Your task to perform on an android device: Is it going to rain tomorrow? Image 0: 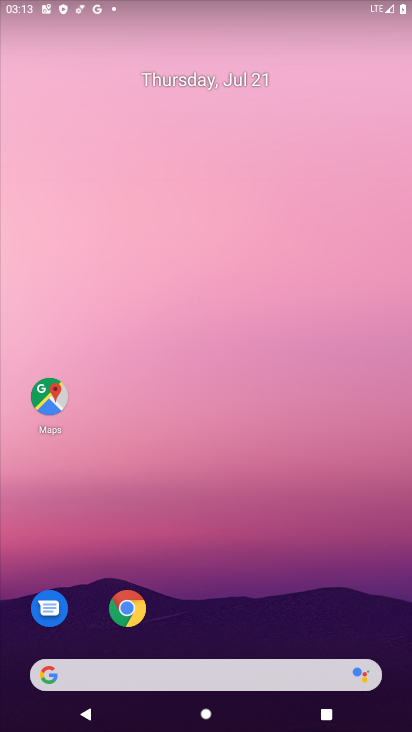
Step 0: click (240, 675)
Your task to perform on an android device: Is it going to rain tomorrow? Image 1: 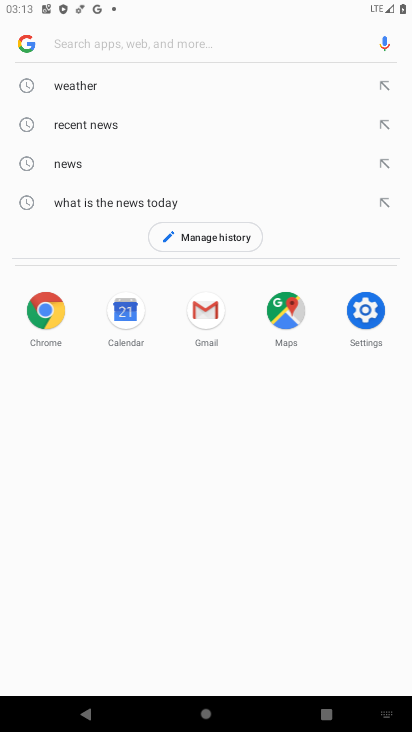
Step 1: click (74, 81)
Your task to perform on an android device: Is it going to rain tomorrow? Image 2: 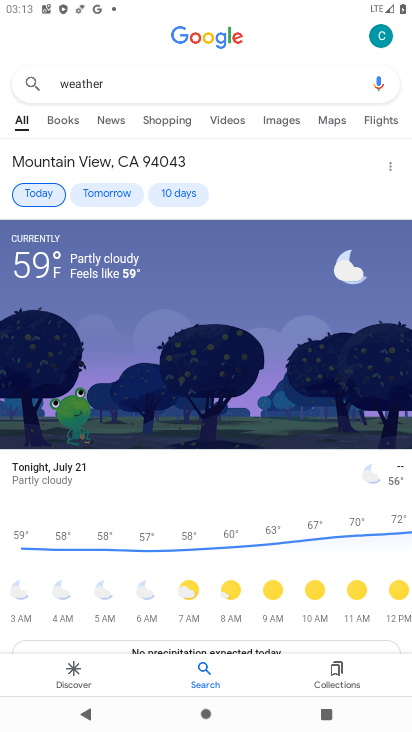
Step 2: click (107, 198)
Your task to perform on an android device: Is it going to rain tomorrow? Image 3: 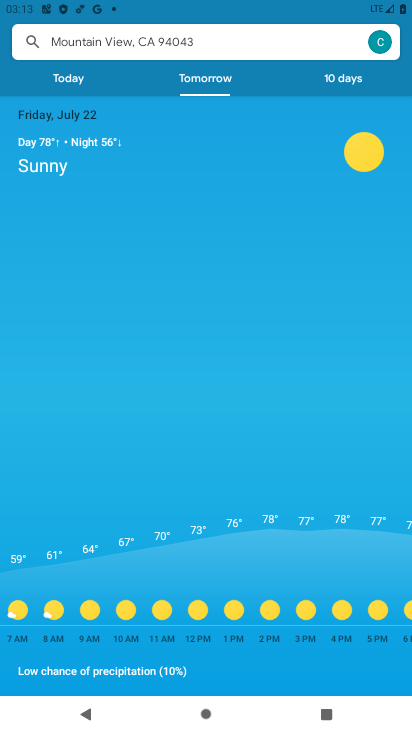
Step 3: task complete